Your task to perform on an android device: turn off location Image 0: 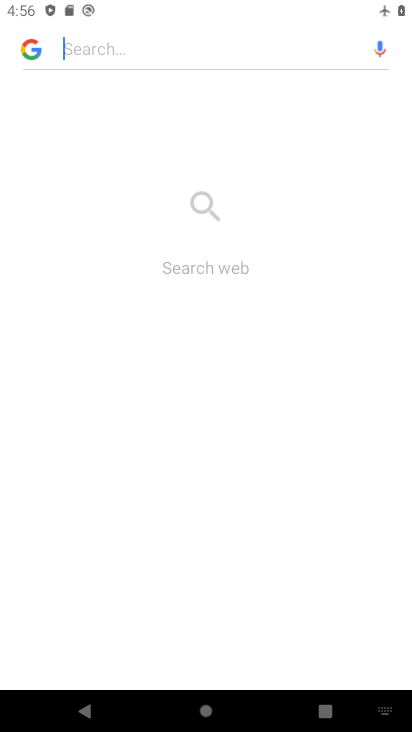
Step 0: press home button
Your task to perform on an android device: turn off location Image 1: 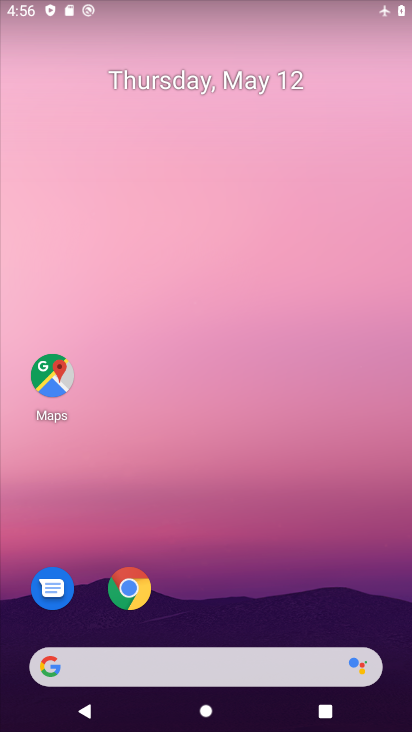
Step 1: drag from (226, 510) to (269, 11)
Your task to perform on an android device: turn off location Image 2: 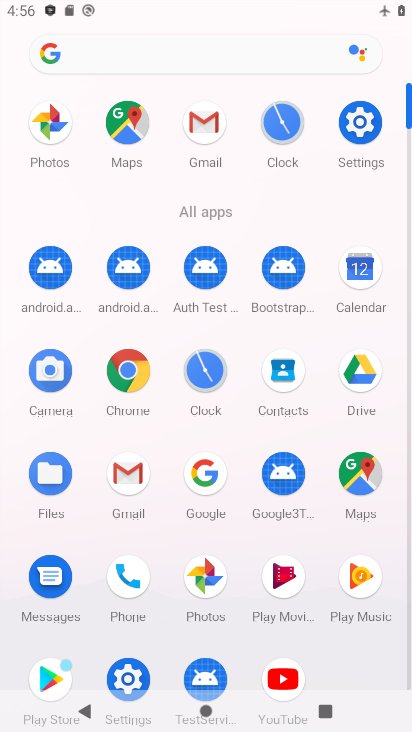
Step 2: click (372, 123)
Your task to perform on an android device: turn off location Image 3: 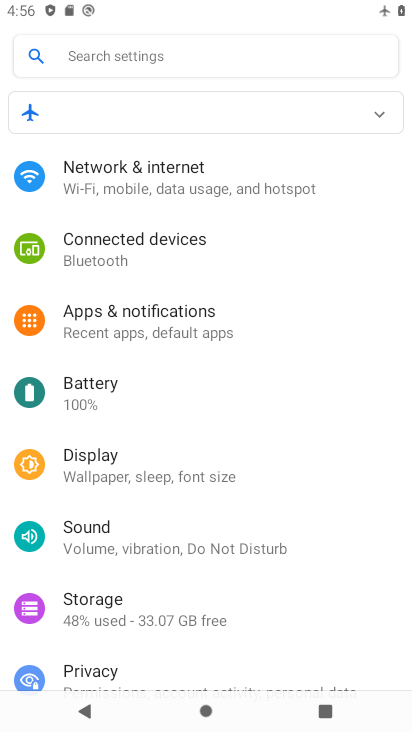
Step 3: drag from (151, 505) to (211, 201)
Your task to perform on an android device: turn off location Image 4: 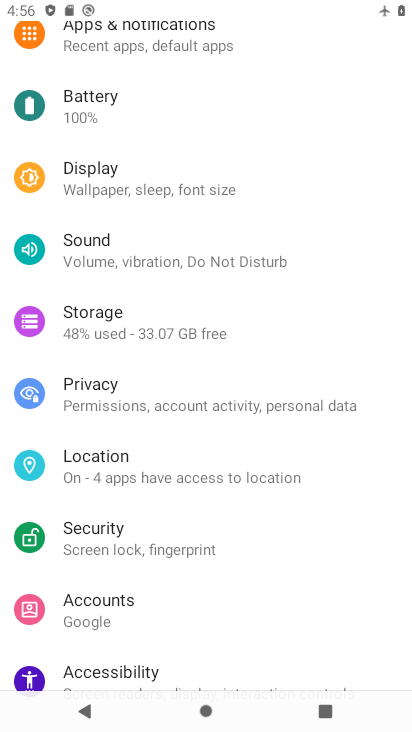
Step 4: click (152, 479)
Your task to perform on an android device: turn off location Image 5: 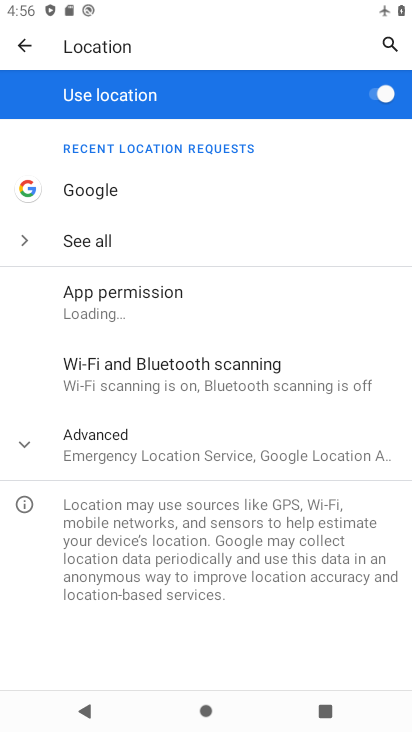
Step 5: click (341, 101)
Your task to perform on an android device: turn off location Image 6: 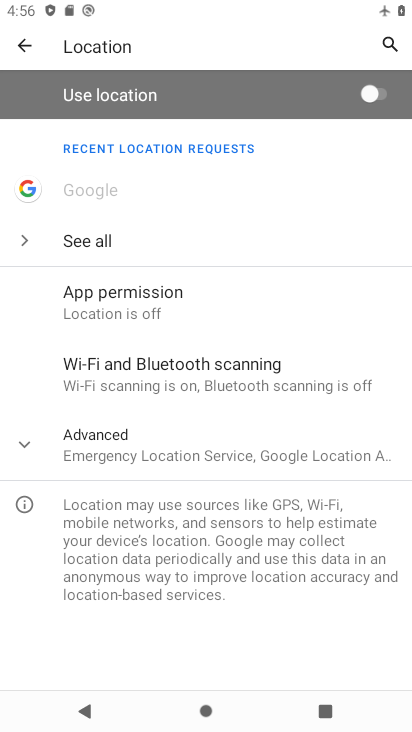
Step 6: task complete